Your task to perform on an android device: Toggle the flashlight Image 0: 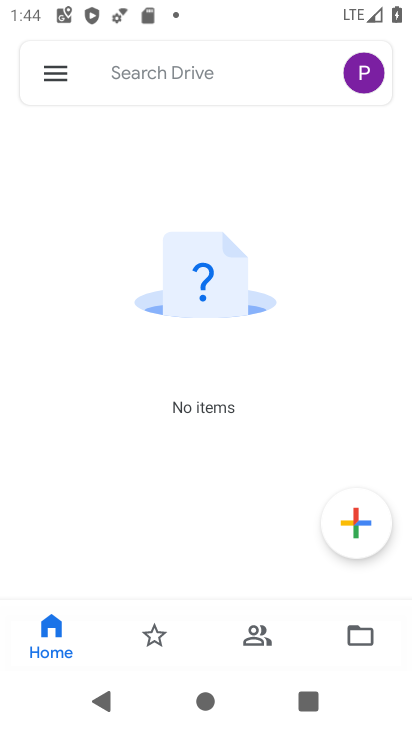
Step 0: press home button
Your task to perform on an android device: Toggle the flashlight Image 1: 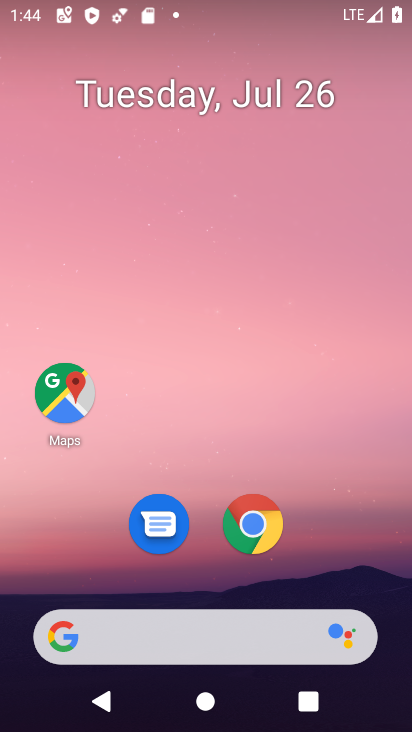
Step 1: drag from (331, 537) to (297, 135)
Your task to perform on an android device: Toggle the flashlight Image 2: 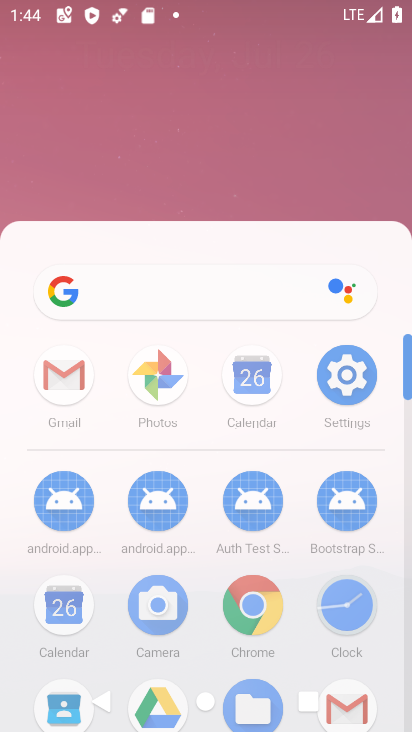
Step 2: click (297, 88)
Your task to perform on an android device: Toggle the flashlight Image 3: 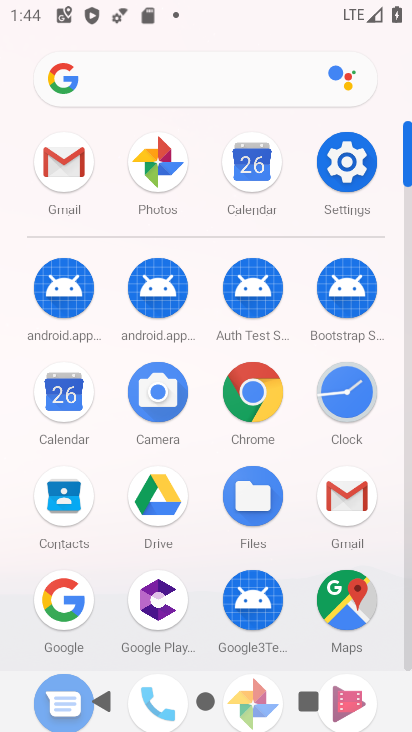
Step 3: click (338, 163)
Your task to perform on an android device: Toggle the flashlight Image 4: 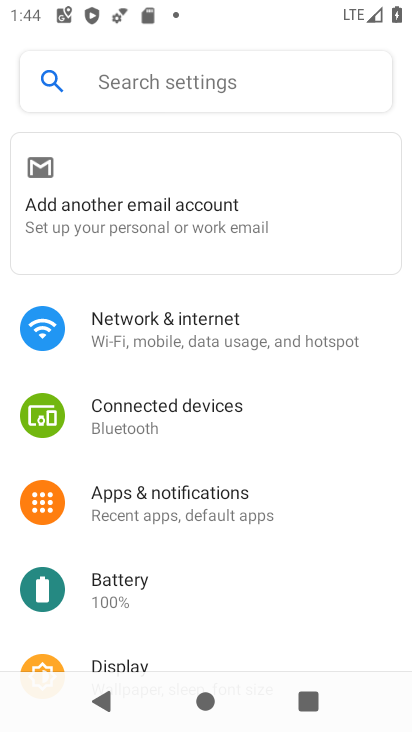
Step 4: click (266, 77)
Your task to perform on an android device: Toggle the flashlight Image 5: 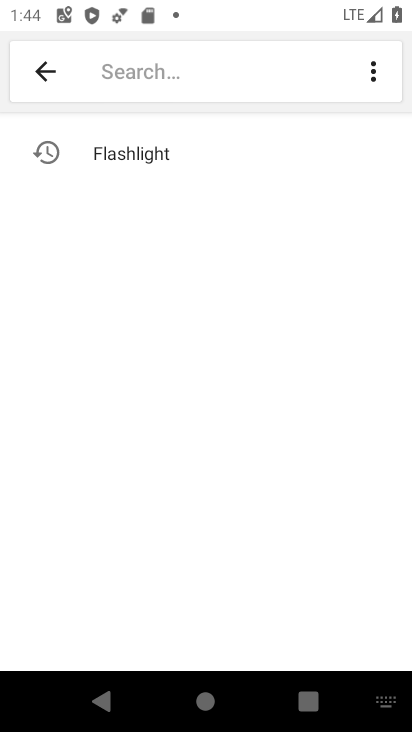
Step 5: click (141, 146)
Your task to perform on an android device: Toggle the flashlight Image 6: 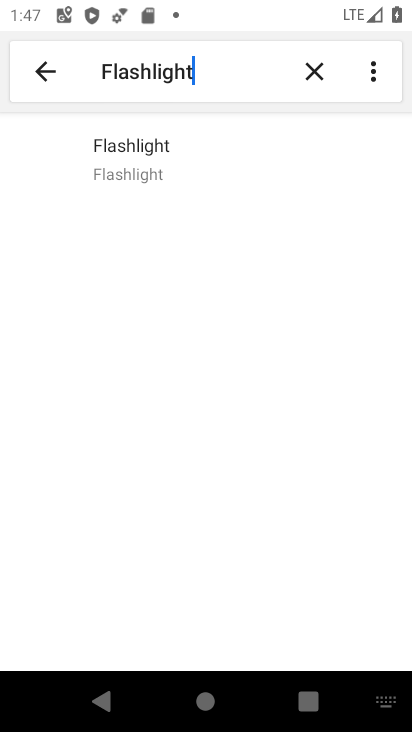
Step 6: click (154, 156)
Your task to perform on an android device: Toggle the flashlight Image 7: 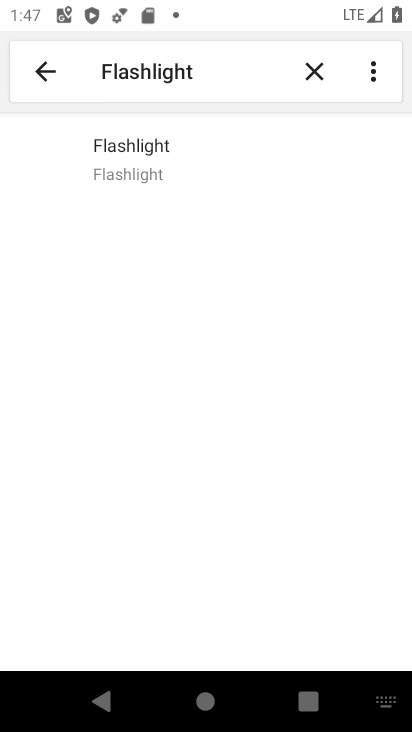
Step 7: task complete